Your task to perform on an android device: visit the assistant section in the google photos Image 0: 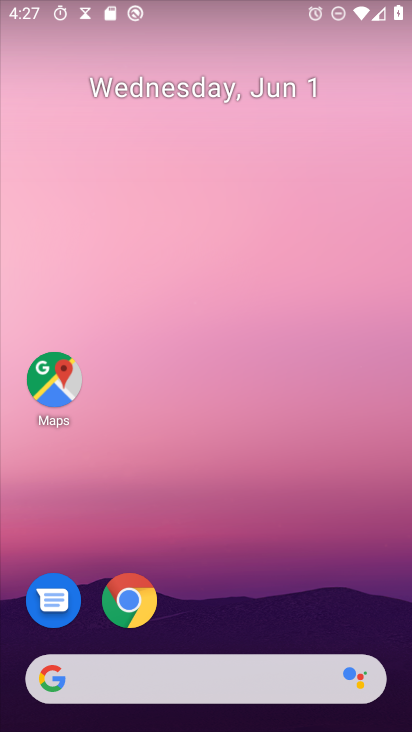
Step 0: drag from (189, 629) to (201, 204)
Your task to perform on an android device: visit the assistant section in the google photos Image 1: 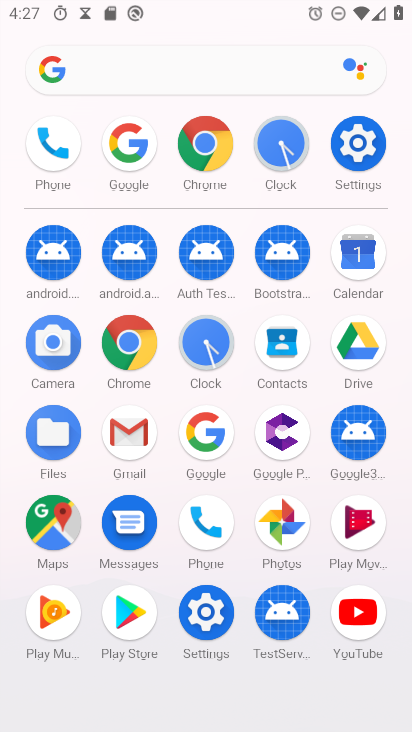
Step 1: click (279, 519)
Your task to perform on an android device: visit the assistant section in the google photos Image 2: 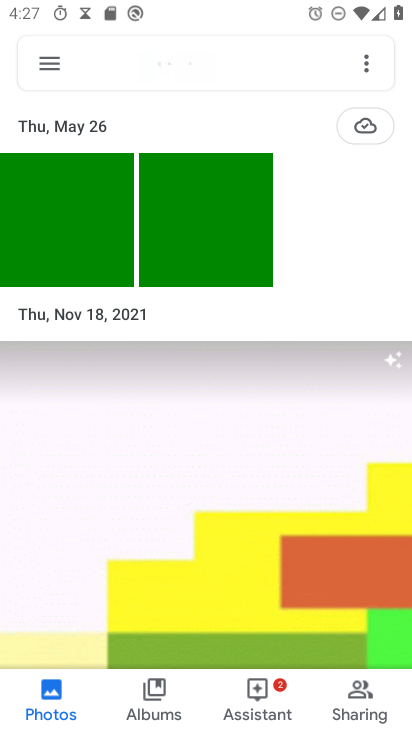
Step 2: click (244, 696)
Your task to perform on an android device: visit the assistant section in the google photos Image 3: 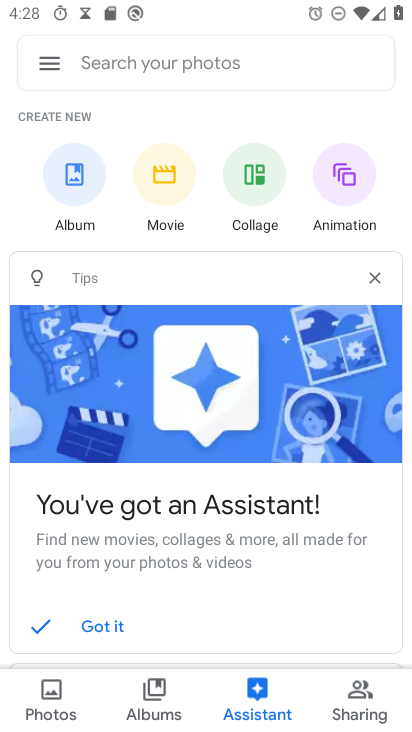
Step 3: task complete